Your task to perform on an android device: turn off picture-in-picture Image 0: 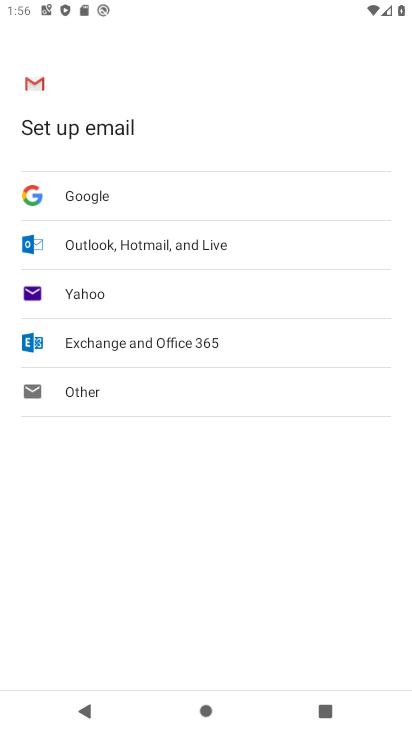
Step 0: press back button
Your task to perform on an android device: turn off picture-in-picture Image 1: 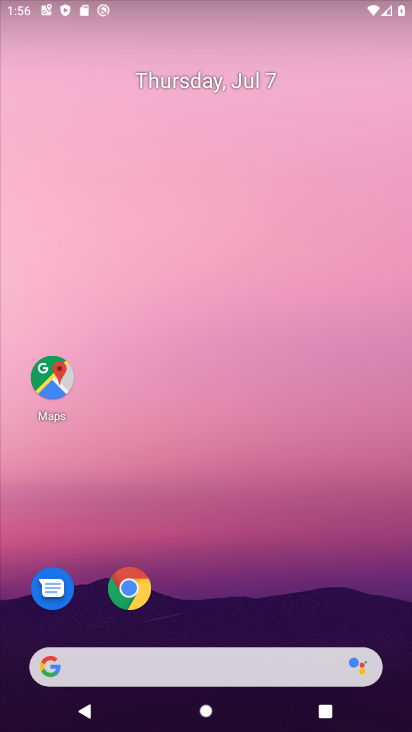
Step 1: drag from (173, 640) to (268, 1)
Your task to perform on an android device: turn off picture-in-picture Image 2: 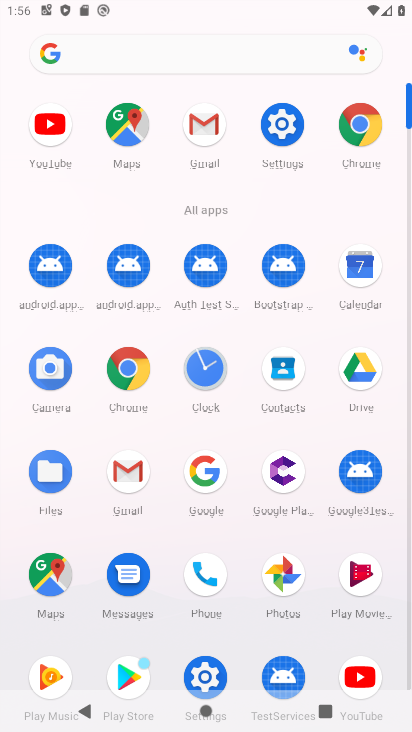
Step 2: click (287, 116)
Your task to perform on an android device: turn off picture-in-picture Image 3: 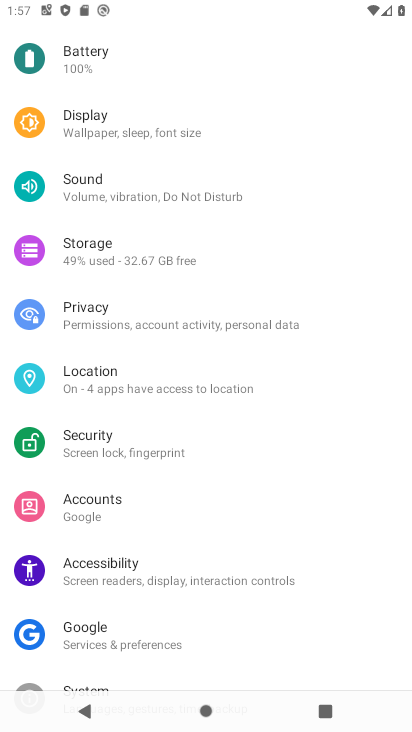
Step 3: drag from (117, 220) to (193, 729)
Your task to perform on an android device: turn off picture-in-picture Image 4: 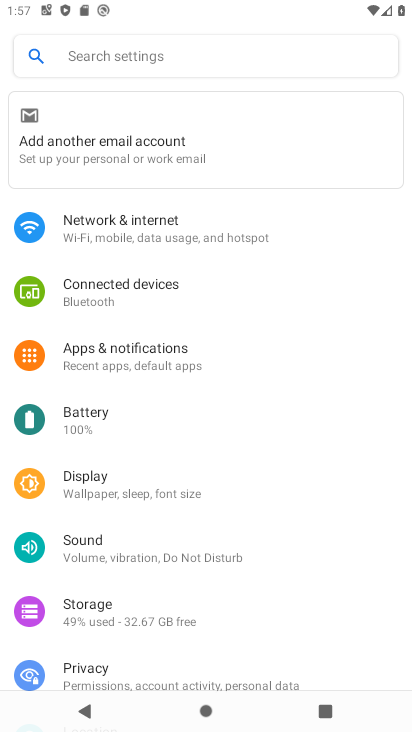
Step 4: click (129, 352)
Your task to perform on an android device: turn off picture-in-picture Image 5: 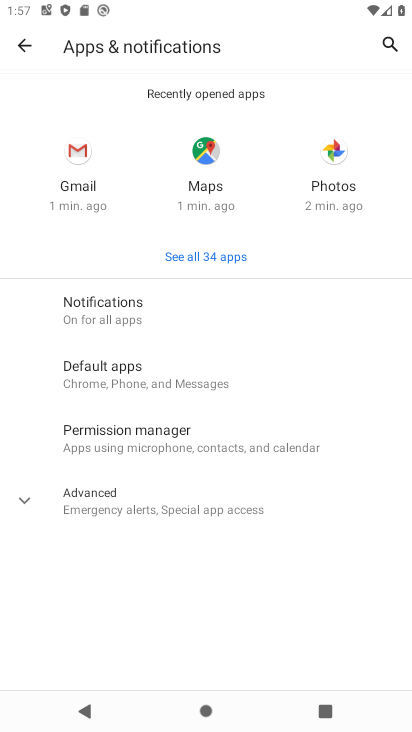
Step 5: click (136, 494)
Your task to perform on an android device: turn off picture-in-picture Image 6: 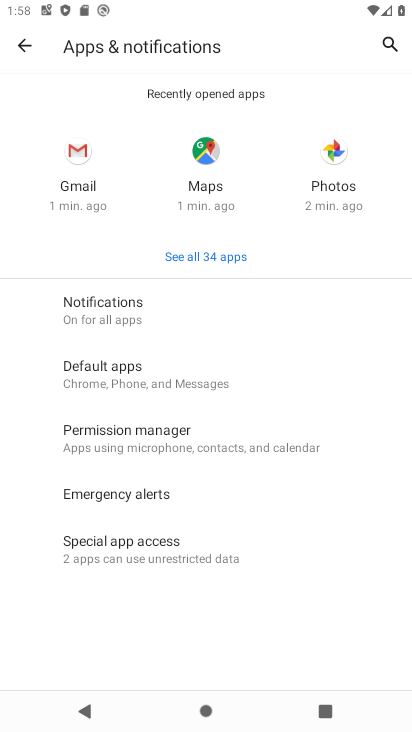
Step 6: click (148, 300)
Your task to perform on an android device: turn off picture-in-picture Image 7: 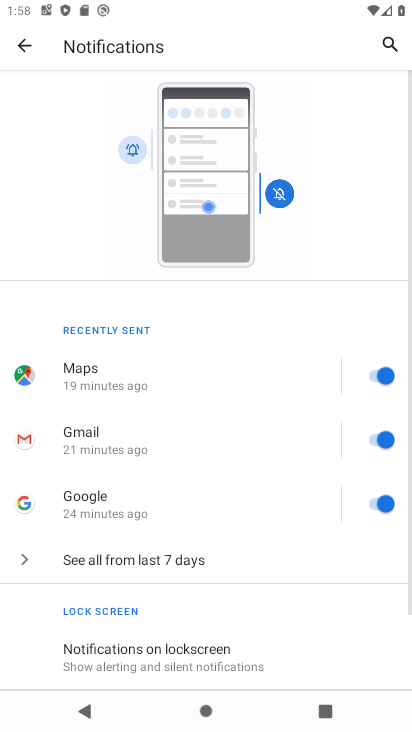
Step 7: drag from (145, 687) to (229, 204)
Your task to perform on an android device: turn off picture-in-picture Image 8: 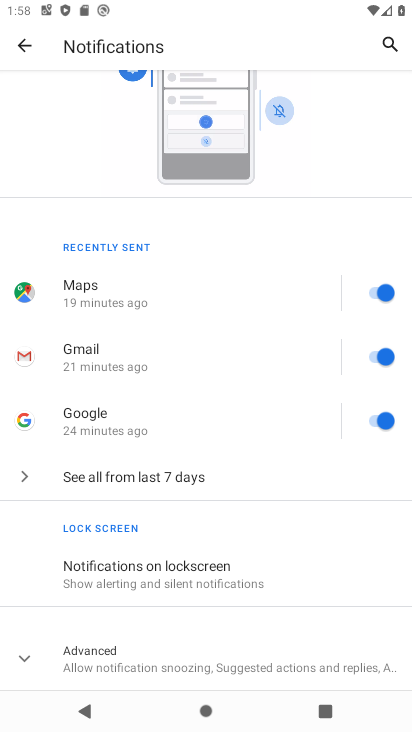
Step 8: click (101, 651)
Your task to perform on an android device: turn off picture-in-picture Image 9: 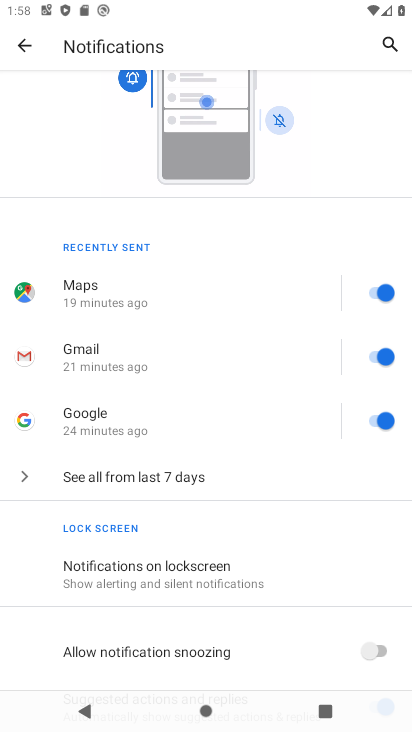
Step 9: drag from (176, 639) to (212, 161)
Your task to perform on an android device: turn off picture-in-picture Image 10: 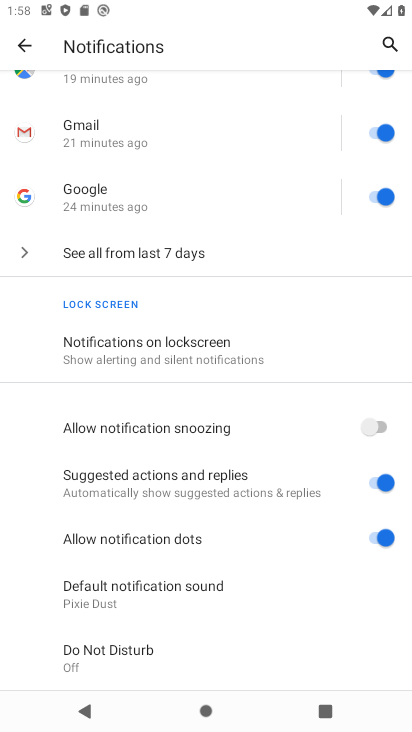
Step 10: drag from (190, 635) to (212, 172)
Your task to perform on an android device: turn off picture-in-picture Image 11: 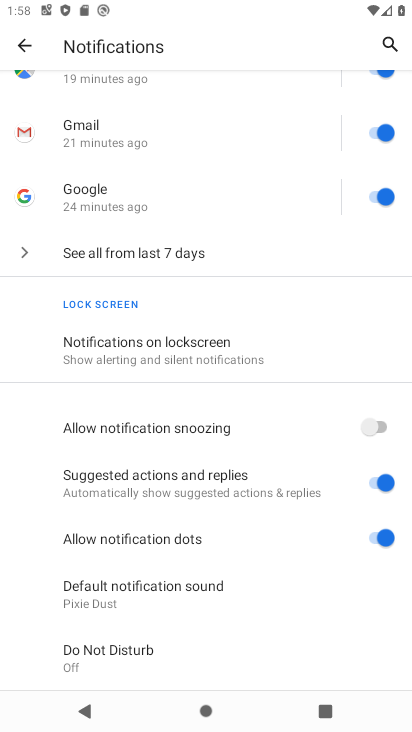
Step 11: click (23, 42)
Your task to perform on an android device: turn off picture-in-picture Image 12: 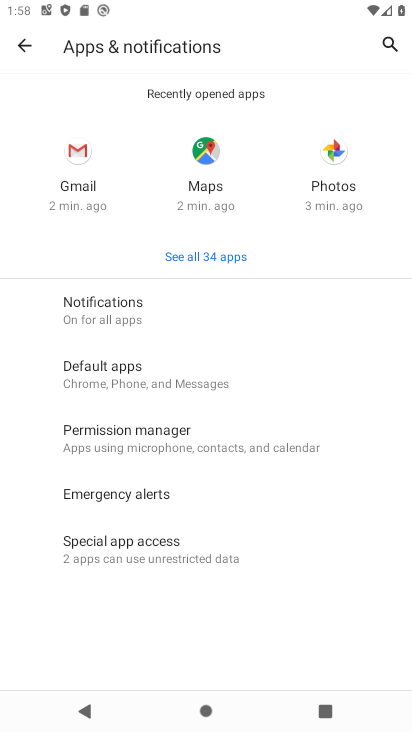
Step 12: click (230, 535)
Your task to perform on an android device: turn off picture-in-picture Image 13: 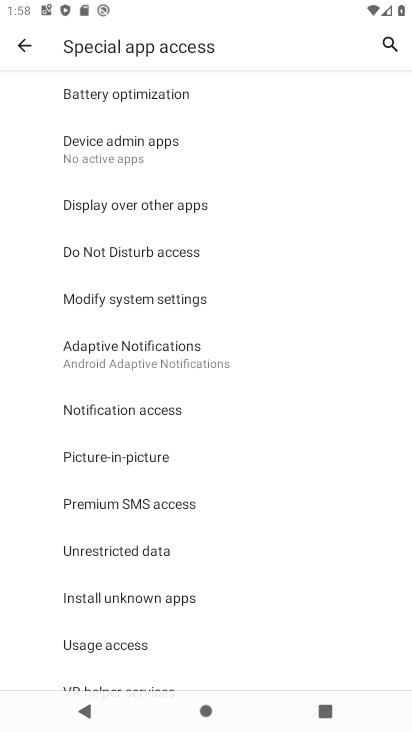
Step 13: click (171, 453)
Your task to perform on an android device: turn off picture-in-picture Image 14: 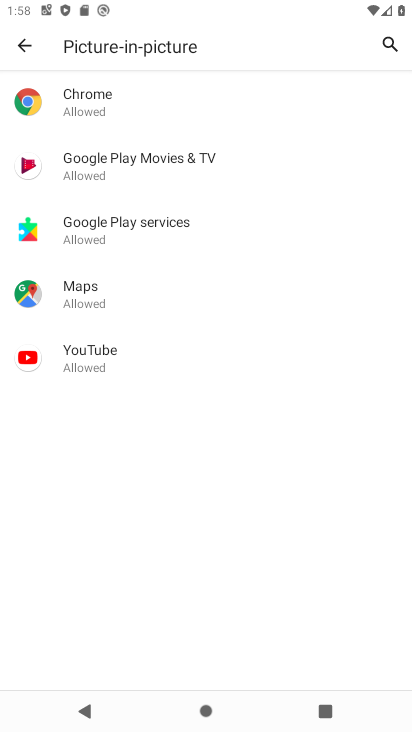
Step 14: click (91, 118)
Your task to perform on an android device: turn off picture-in-picture Image 15: 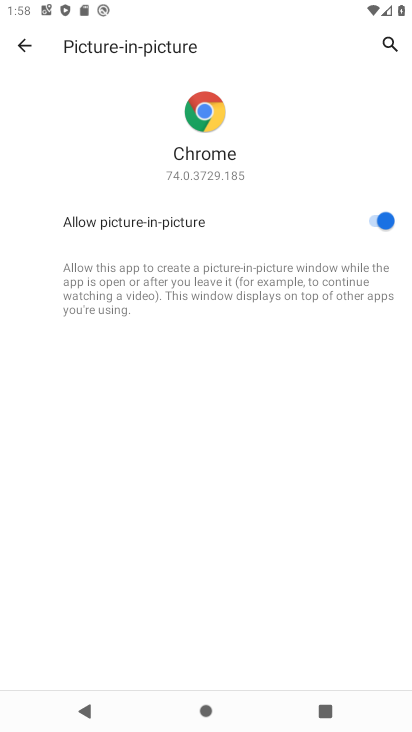
Step 15: click (367, 213)
Your task to perform on an android device: turn off picture-in-picture Image 16: 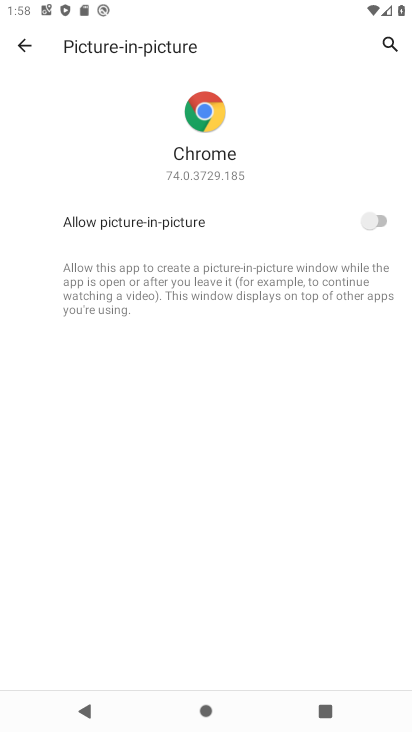
Step 16: task complete